Your task to perform on an android device: Open the calendar app, open the side menu, and click the "Day" option Image 0: 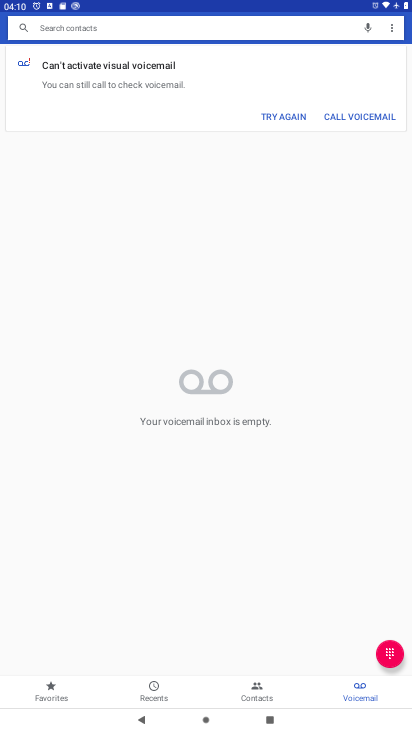
Step 0: press home button
Your task to perform on an android device: Open the calendar app, open the side menu, and click the "Day" option Image 1: 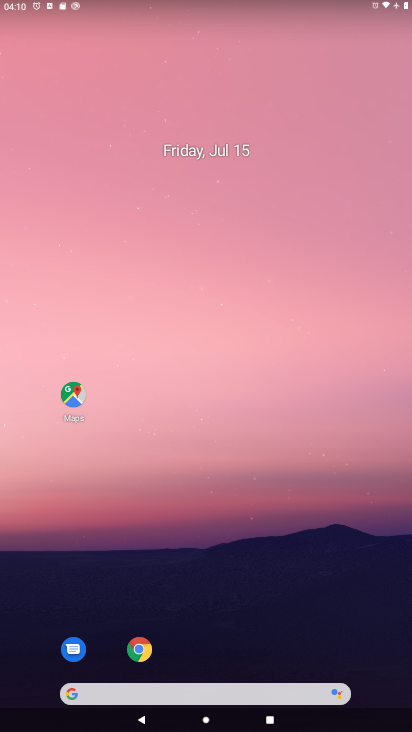
Step 1: drag from (392, 672) to (351, 109)
Your task to perform on an android device: Open the calendar app, open the side menu, and click the "Day" option Image 2: 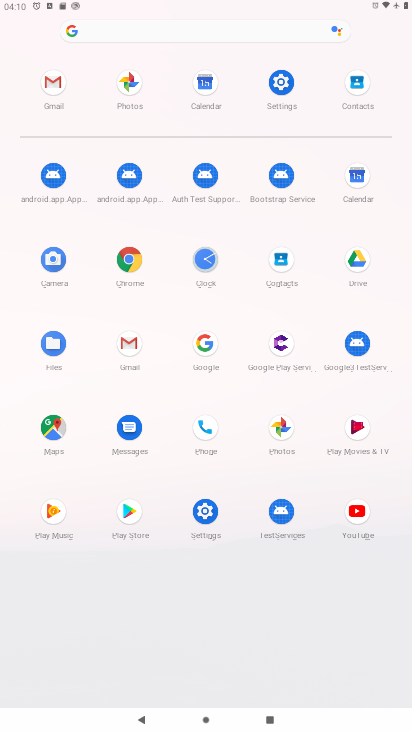
Step 2: click (356, 84)
Your task to perform on an android device: Open the calendar app, open the side menu, and click the "Day" option Image 3: 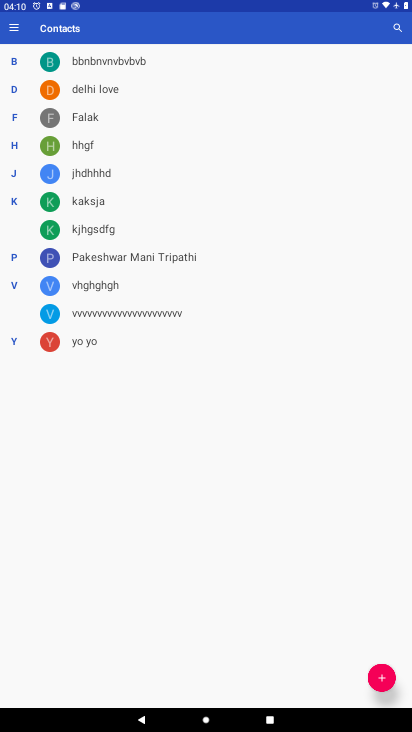
Step 3: press home button
Your task to perform on an android device: Open the calendar app, open the side menu, and click the "Day" option Image 4: 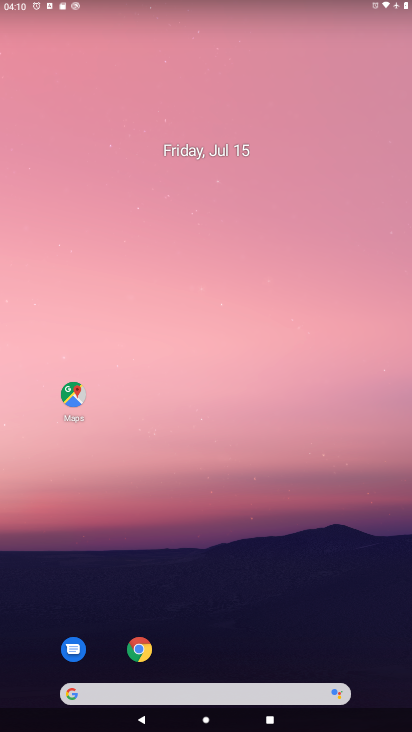
Step 4: drag from (354, 661) to (303, 71)
Your task to perform on an android device: Open the calendar app, open the side menu, and click the "Day" option Image 5: 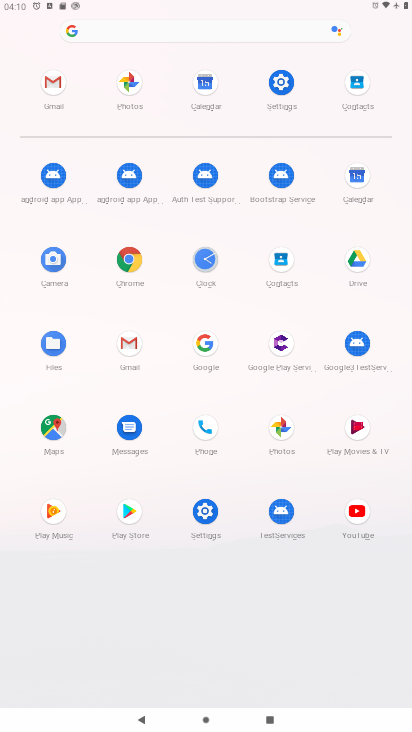
Step 5: click (357, 177)
Your task to perform on an android device: Open the calendar app, open the side menu, and click the "Day" option Image 6: 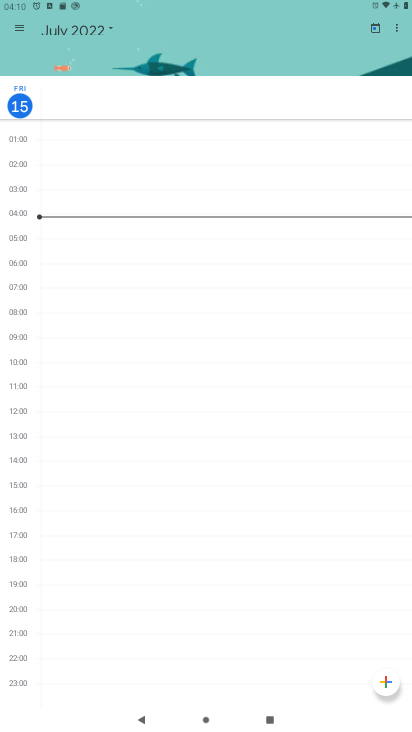
Step 6: click (18, 23)
Your task to perform on an android device: Open the calendar app, open the side menu, and click the "Day" option Image 7: 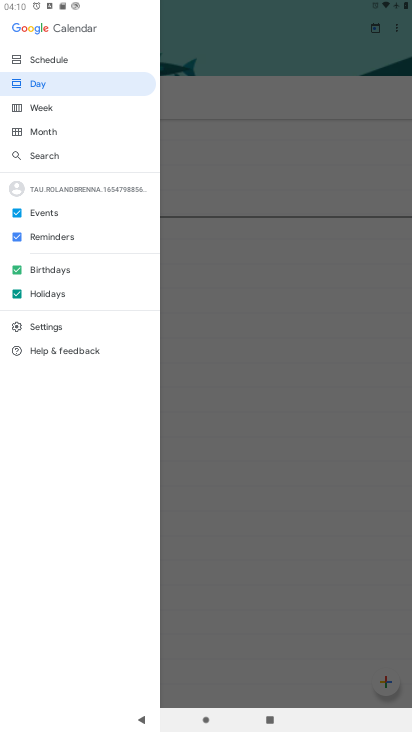
Step 7: click (45, 81)
Your task to perform on an android device: Open the calendar app, open the side menu, and click the "Day" option Image 8: 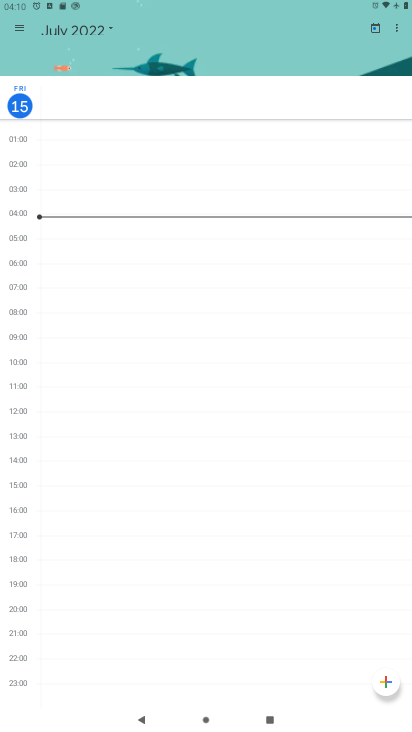
Step 8: task complete